Your task to perform on an android device: Open sound settings Image 0: 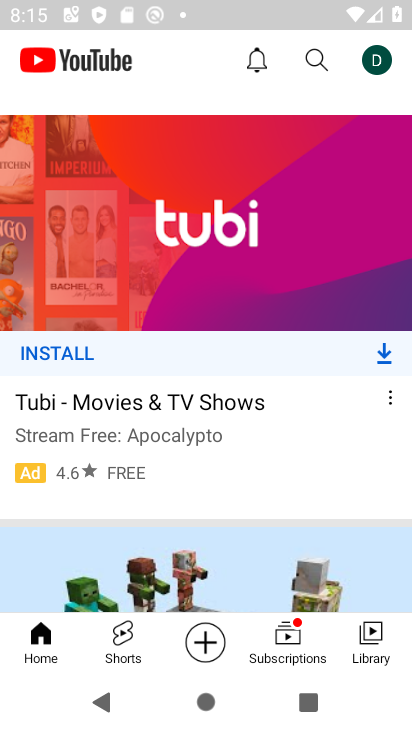
Step 0: press home button
Your task to perform on an android device: Open sound settings Image 1: 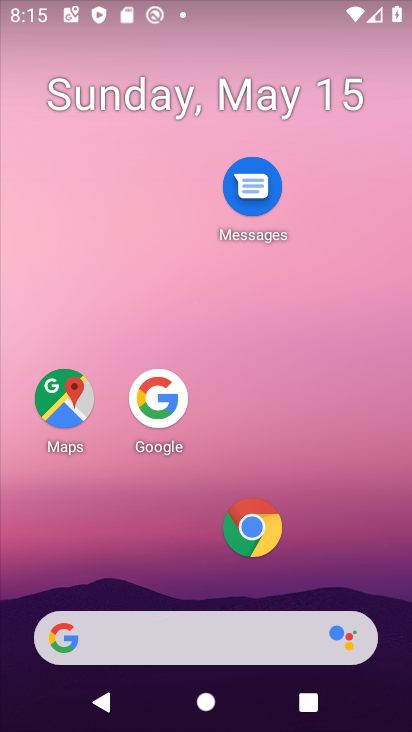
Step 1: drag from (142, 645) to (262, 219)
Your task to perform on an android device: Open sound settings Image 2: 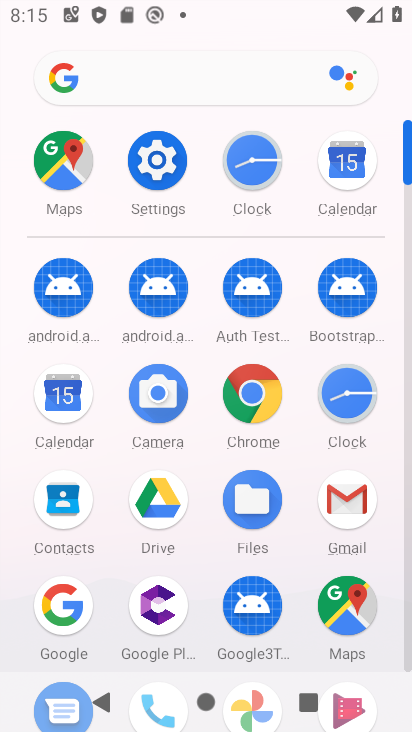
Step 2: click (158, 162)
Your task to perform on an android device: Open sound settings Image 3: 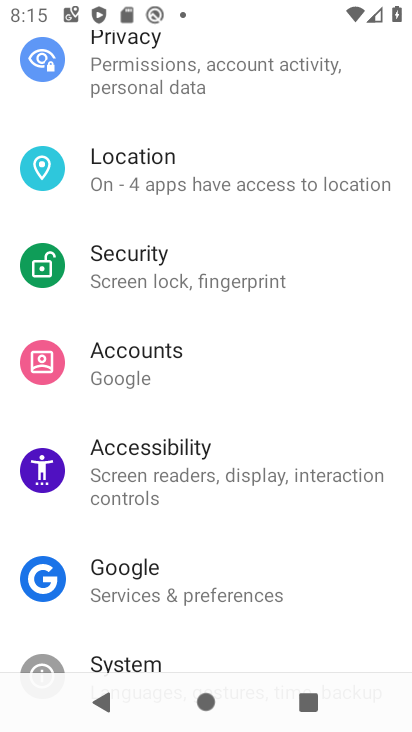
Step 3: drag from (303, 119) to (179, 557)
Your task to perform on an android device: Open sound settings Image 4: 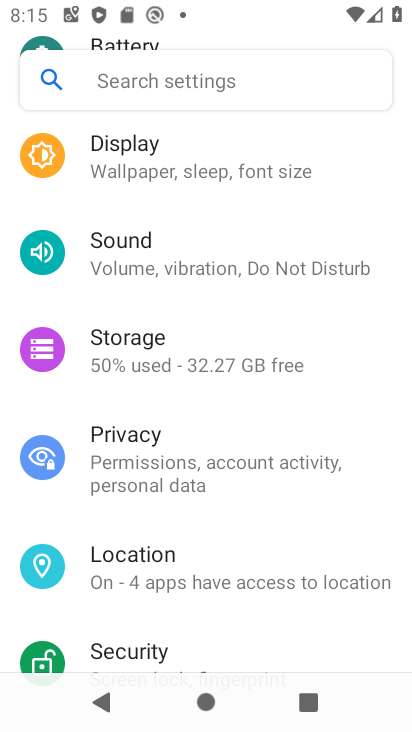
Step 4: click (127, 249)
Your task to perform on an android device: Open sound settings Image 5: 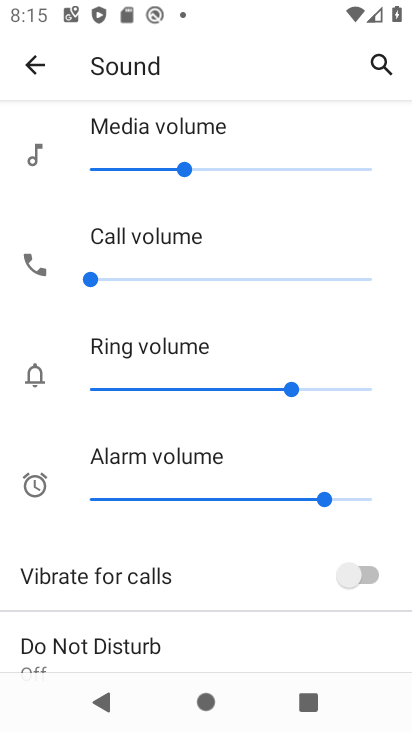
Step 5: task complete